Your task to perform on an android device: Empty the shopping cart on ebay.com. Search for jbl flip 4 on ebay.com, select the first entry, add it to the cart, then select checkout. Image 0: 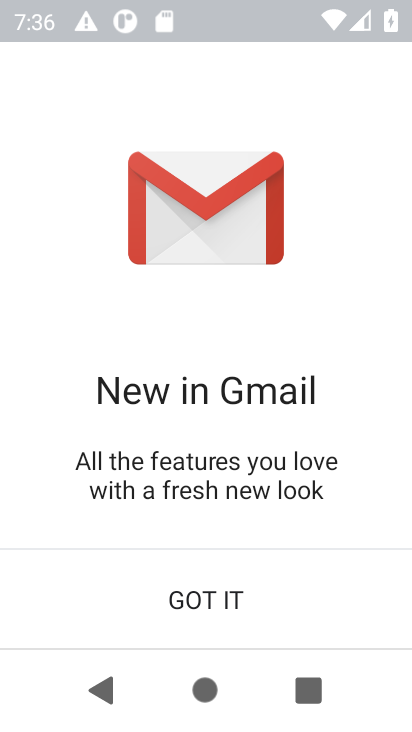
Step 0: press home button
Your task to perform on an android device: Empty the shopping cart on ebay.com. Search for jbl flip 4 on ebay.com, select the first entry, add it to the cart, then select checkout. Image 1: 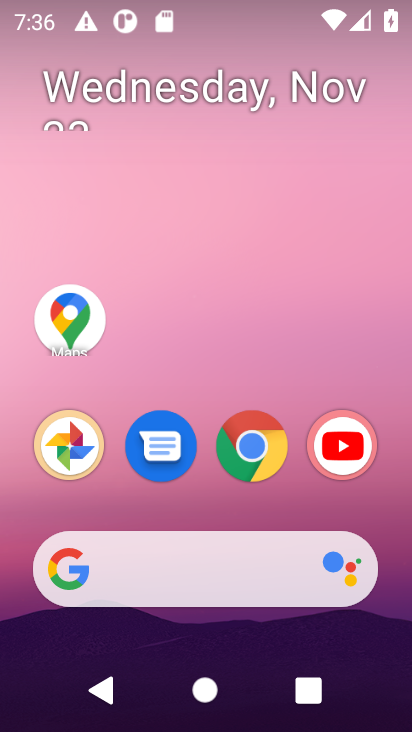
Step 1: click (128, 587)
Your task to perform on an android device: Empty the shopping cart on ebay.com. Search for jbl flip 4 on ebay.com, select the first entry, add it to the cart, then select checkout. Image 2: 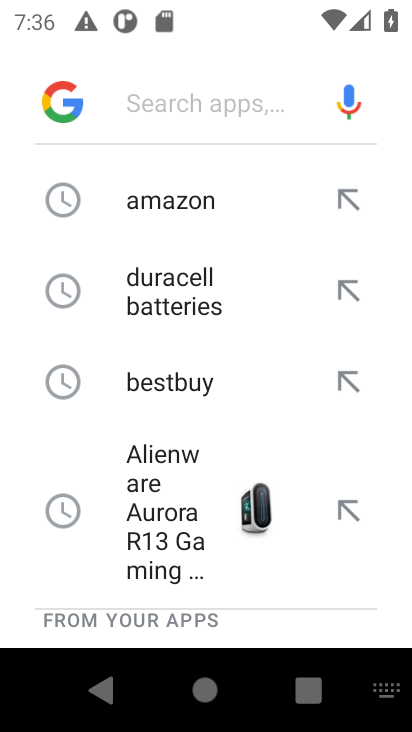
Step 2: type "ebay.com"
Your task to perform on an android device: Empty the shopping cart on ebay.com. Search for jbl flip 4 on ebay.com, select the first entry, add it to the cart, then select checkout. Image 3: 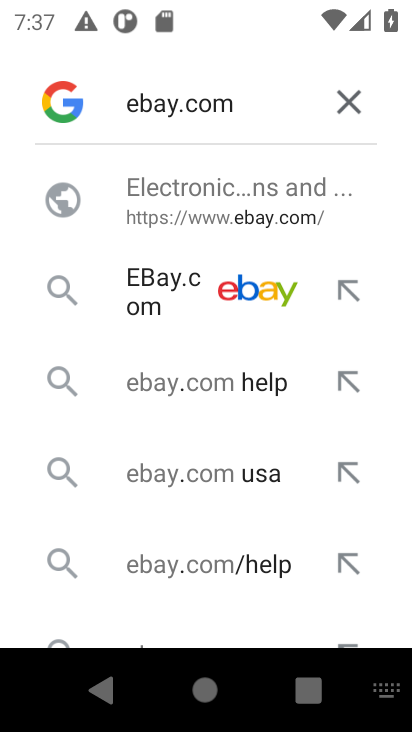
Step 3: click (164, 295)
Your task to perform on an android device: Empty the shopping cart on ebay.com. Search for jbl flip 4 on ebay.com, select the first entry, add it to the cart, then select checkout. Image 4: 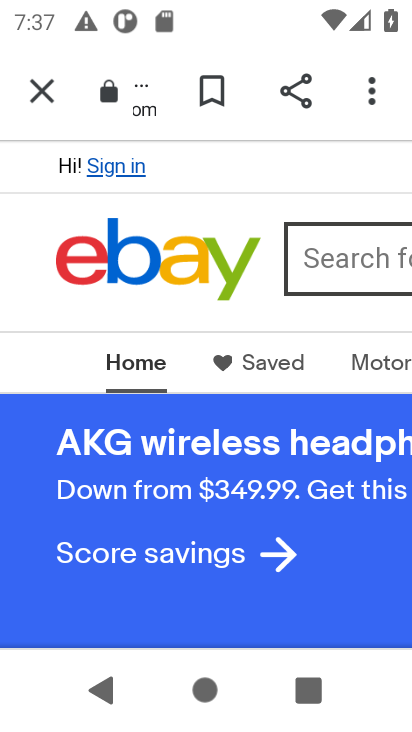
Step 4: click (314, 264)
Your task to perform on an android device: Empty the shopping cart on ebay.com. Search for jbl flip 4 on ebay.com, select the first entry, add it to the cart, then select checkout. Image 5: 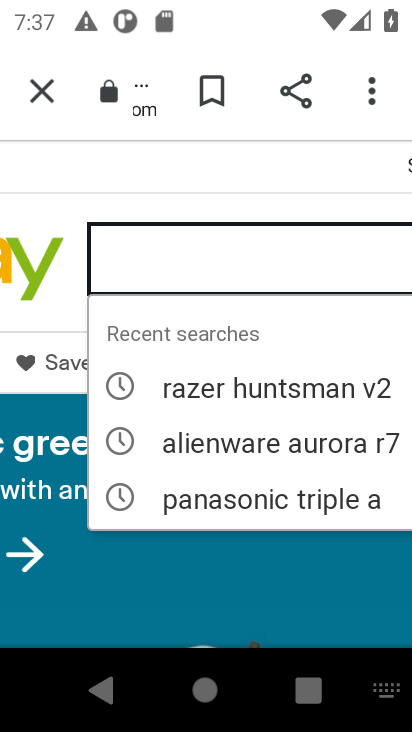
Step 5: type "jbl flip 4"
Your task to perform on an android device: Empty the shopping cart on ebay.com. Search for jbl flip 4 on ebay.com, select the first entry, add it to the cart, then select checkout. Image 6: 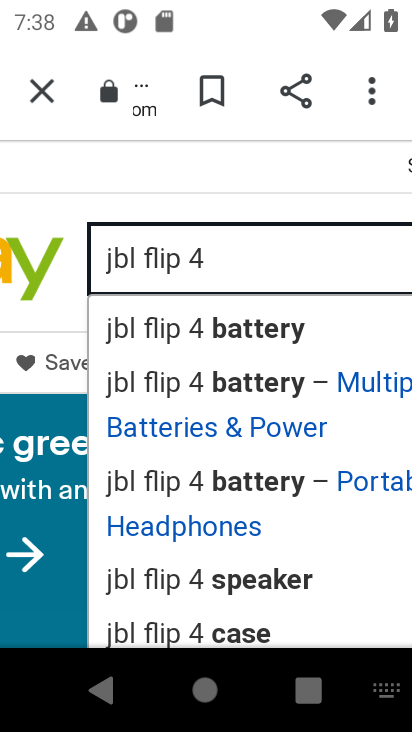
Step 6: click (210, 569)
Your task to perform on an android device: Empty the shopping cart on ebay.com. Search for jbl flip 4 on ebay.com, select the first entry, add it to the cart, then select checkout. Image 7: 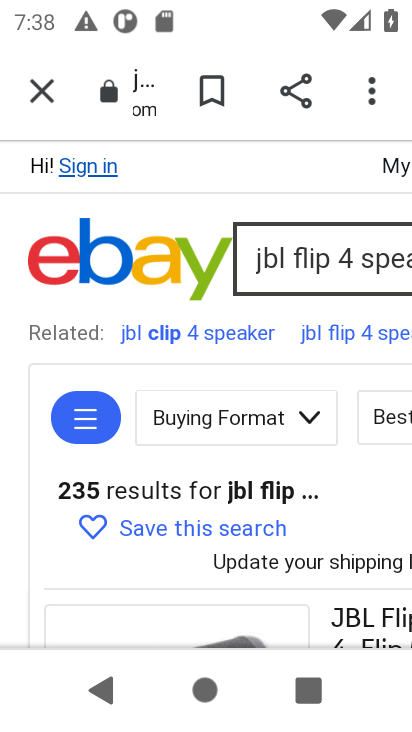
Step 7: drag from (84, 543) to (104, 172)
Your task to perform on an android device: Empty the shopping cart on ebay.com. Search for jbl flip 4 on ebay.com, select the first entry, add it to the cart, then select checkout. Image 8: 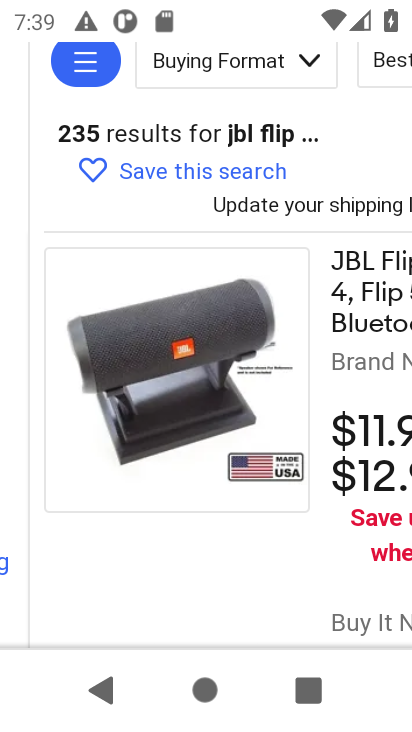
Step 8: click (359, 331)
Your task to perform on an android device: Empty the shopping cart on ebay.com. Search for jbl flip 4 on ebay.com, select the first entry, add it to the cart, then select checkout. Image 9: 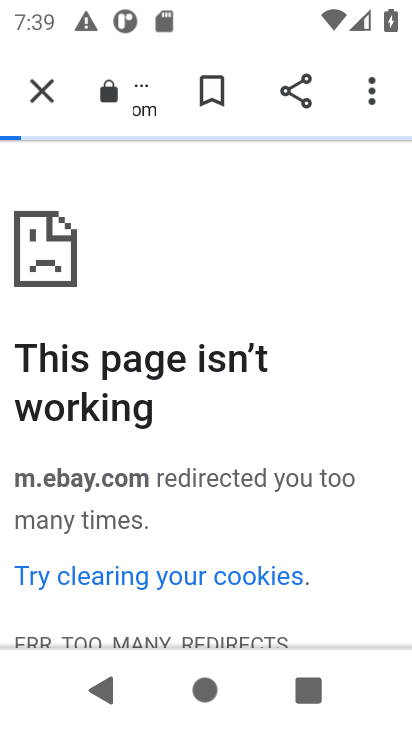
Step 9: task complete